Your task to perform on an android device: Show me productivity apps on the Play Store Image 0: 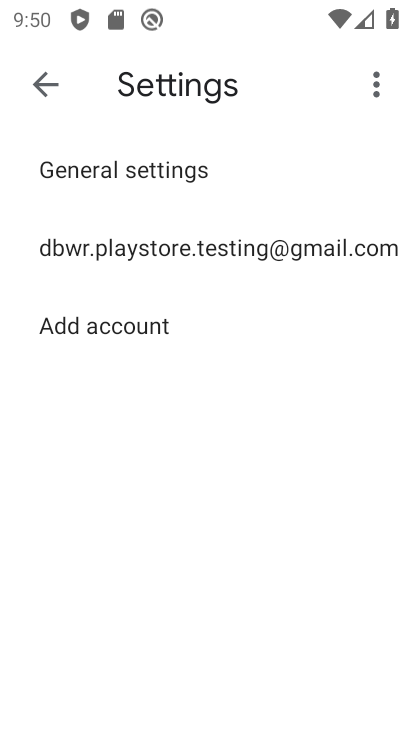
Step 0: task complete